Your task to perform on an android device: open a new tab in the chrome app Image 0: 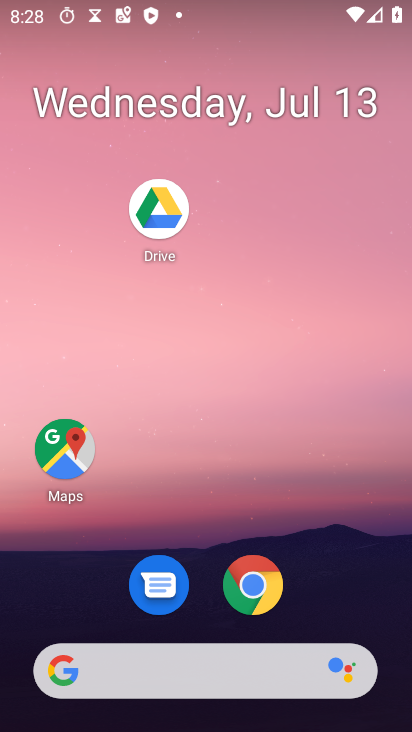
Step 0: press home button
Your task to perform on an android device: open a new tab in the chrome app Image 1: 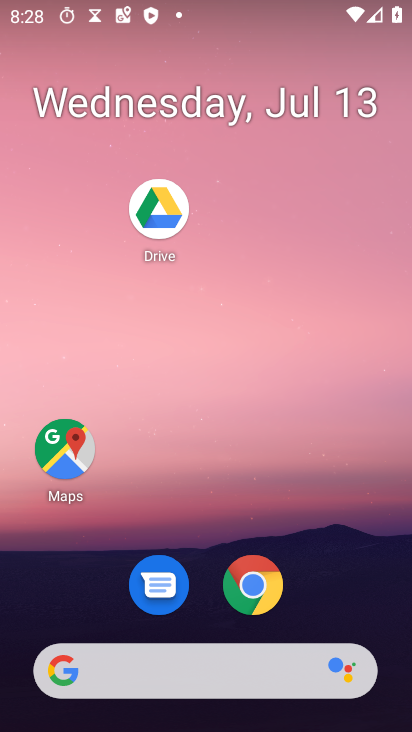
Step 1: click (263, 588)
Your task to perform on an android device: open a new tab in the chrome app Image 2: 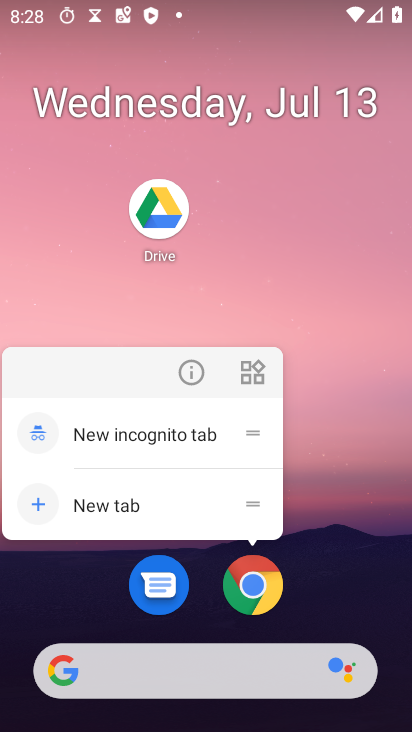
Step 2: click (264, 585)
Your task to perform on an android device: open a new tab in the chrome app Image 3: 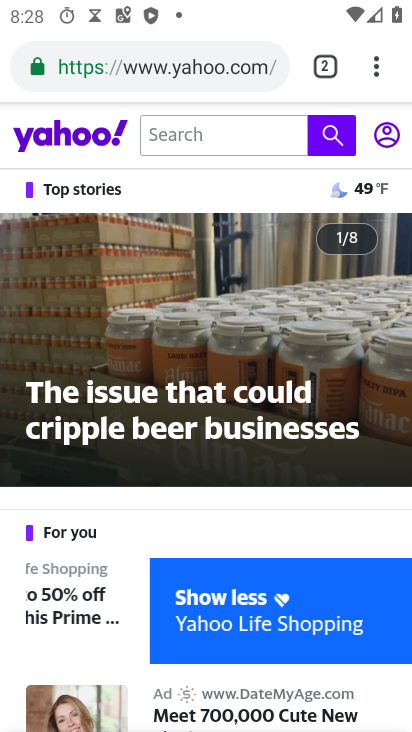
Step 3: task complete